Your task to perform on an android device: change keyboard looks Image 0: 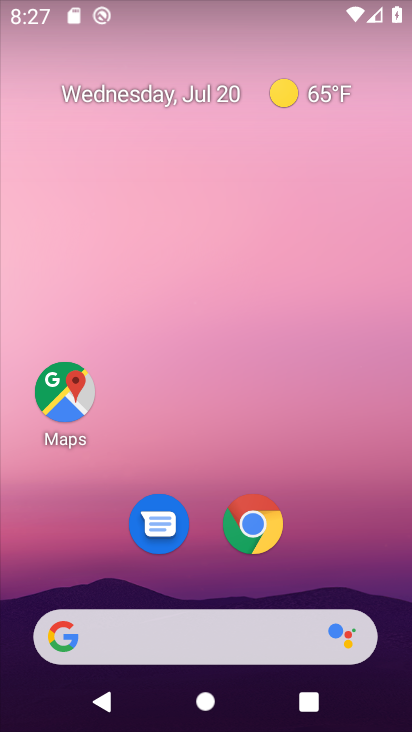
Step 0: drag from (343, 534) to (329, 57)
Your task to perform on an android device: change keyboard looks Image 1: 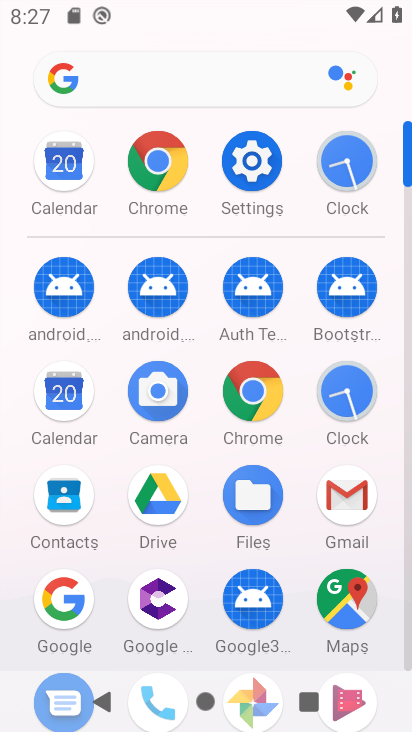
Step 1: click (260, 163)
Your task to perform on an android device: change keyboard looks Image 2: 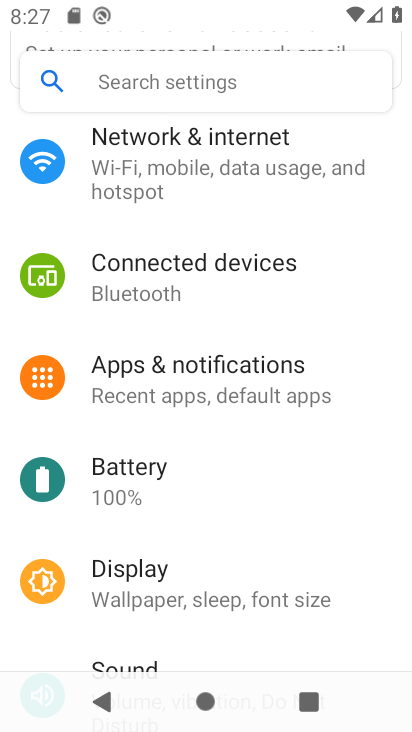
Step 2: drag from (215, 606) to (255, 105)
Your task to perform on an android device: change keyboard looks Image 3: 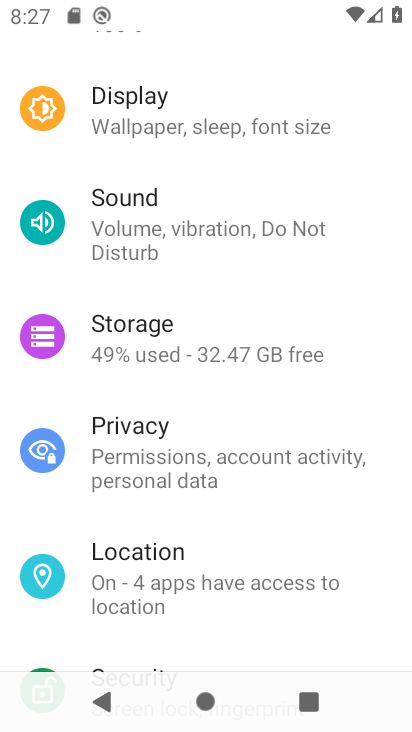
Step 3: drag from (231, 532) to (256, 96)
Your task to perform on an android device: change keyboard looks Image 4: 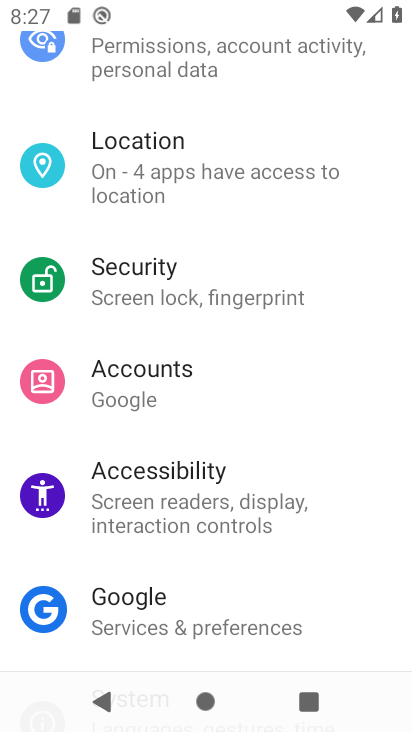
Step 4: drag from (225, 427) to (238, 124)
Your task to perform on an android device: change keyboard looks Image 5: 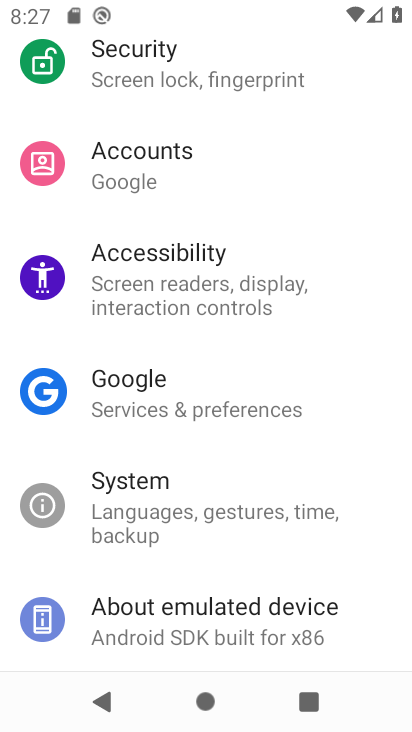
Step 5: click (219, 505)
Your task to perform on an android device: change keyboard looks Image 6: 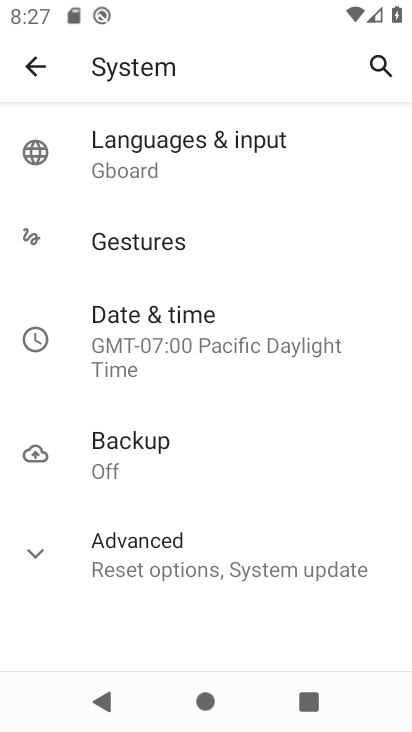
Step 6: click (209, 158)
Your task to perform on an android device: change keyboard looks Image 7: 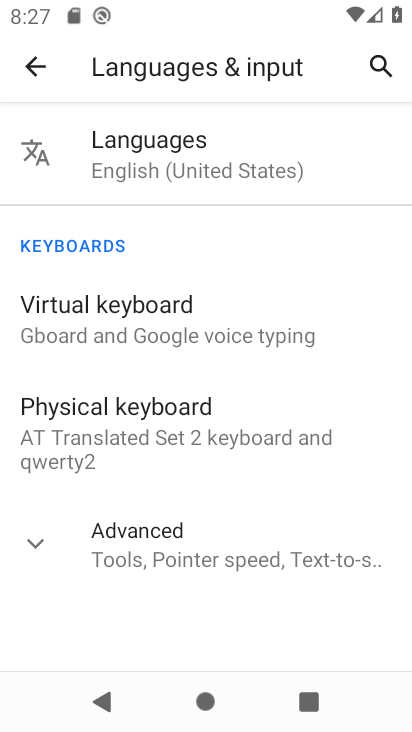
Step 7: click (171, 309)
Your task to perform on an android device: change keyboard looks Image 8: 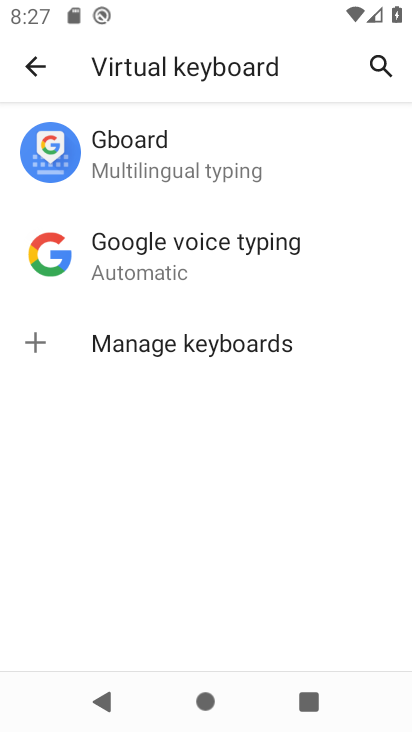
Step 8: click (171, 154)
Your task to perform on an android device: change keyboard looks Image 9: 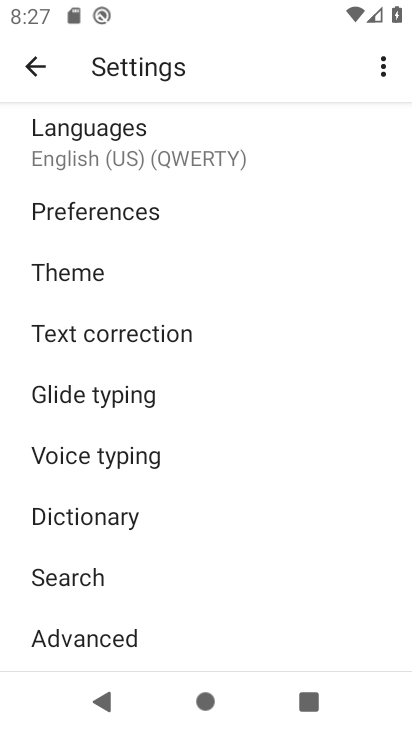
Step 9: click (87, 268)
Your task to perform on an android device: change keyboard looks Image 10: 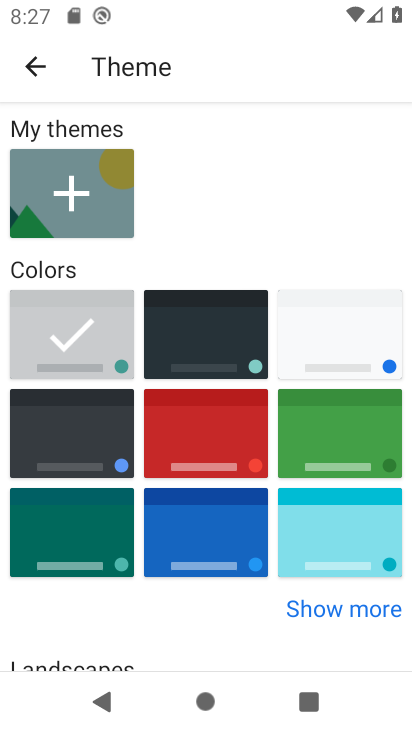
Step 10: click (210, 430)
Your task to perform on an android device: change keyboard looks Image 11: 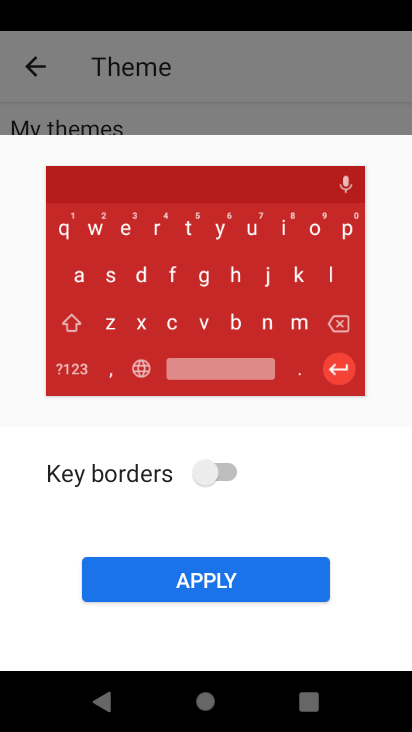
Step 11: click (218, 473)
Your task to perform on an android device: change keyboard looks Image 12: 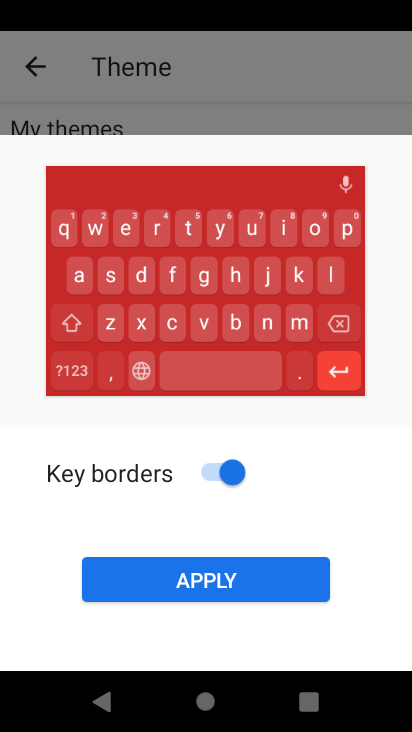
Step 12: click (223, 575)
Your task to perform on an android device: change keyboard looks Image 13: 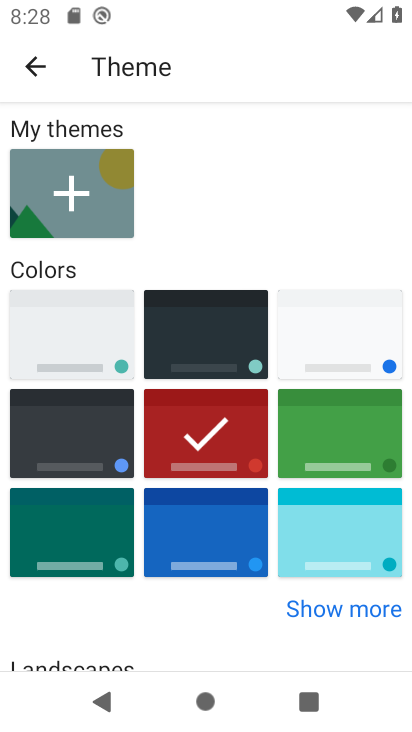
Step 13: task complete